Your task to perform on an android device: turn on bluetooth scan Image 0: 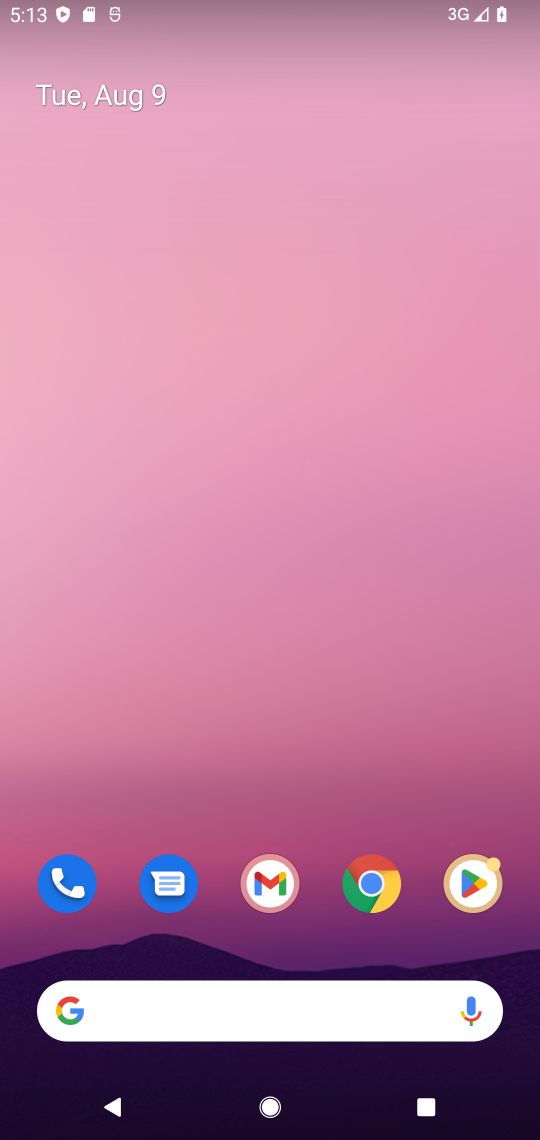
Step 0: drag from (286, 802) to (291, 194)
Your task to perform on an android device: turn on bluetooth scan Image 1: 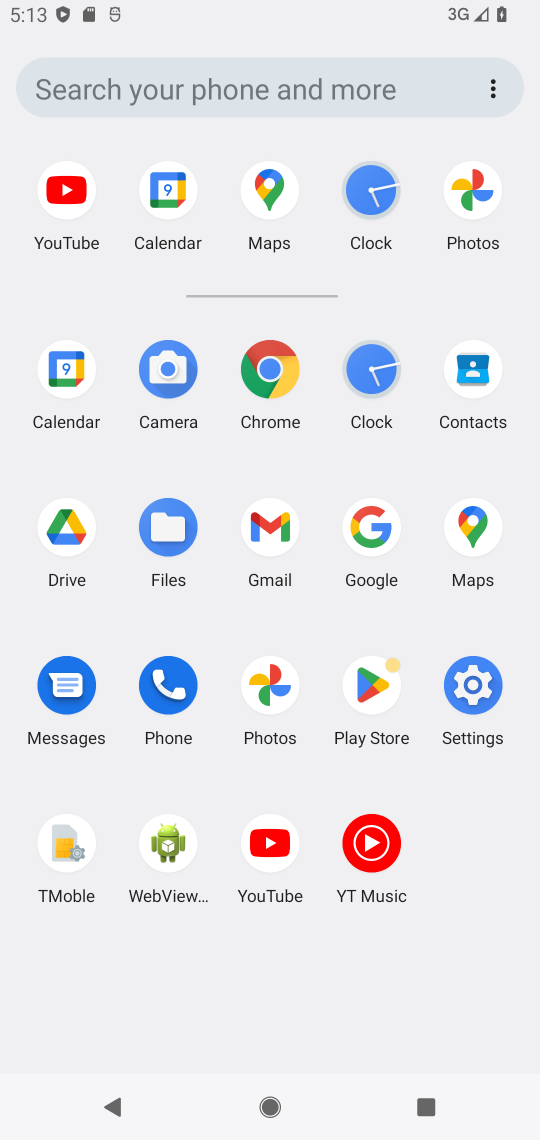
Step 1: click (448, 690)
Your task to perform on an android device: turn on bluetooth scan Image 2: 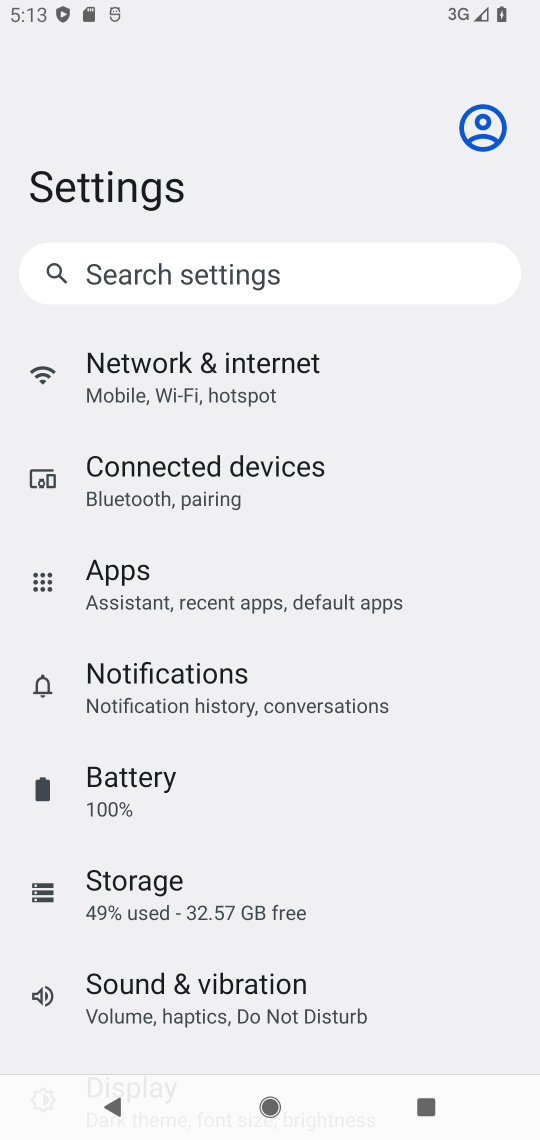
Step 2: drag from (229, 881) to (233, 508)
Your task to perform on an android device: turn on bluetooth scan Image 3: 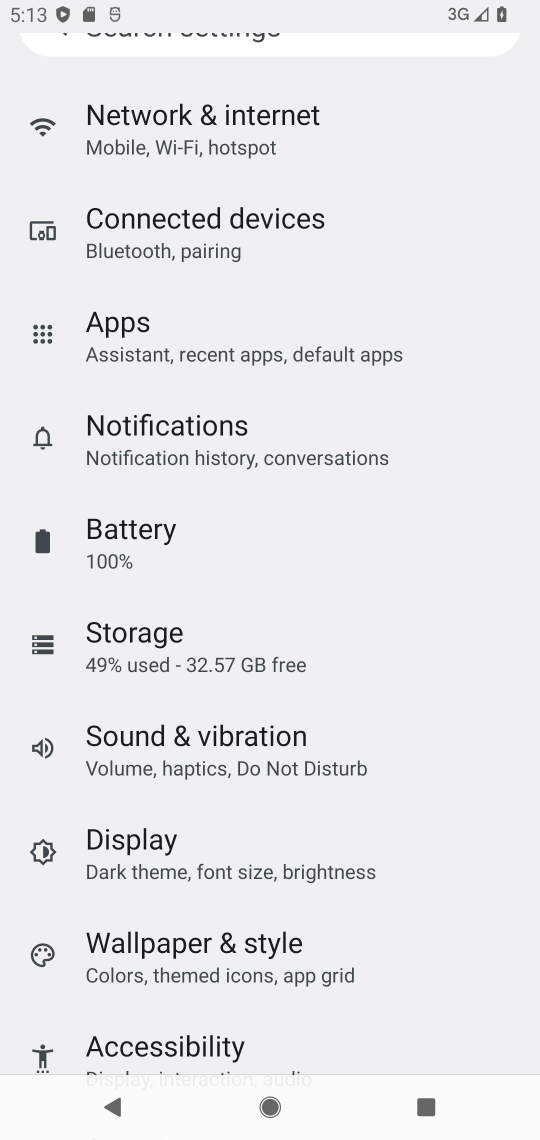
Step 3: drag from (263, 867) to (260, 368)
Your task to perform on an android device: turn on bluetooth scan Image 4: 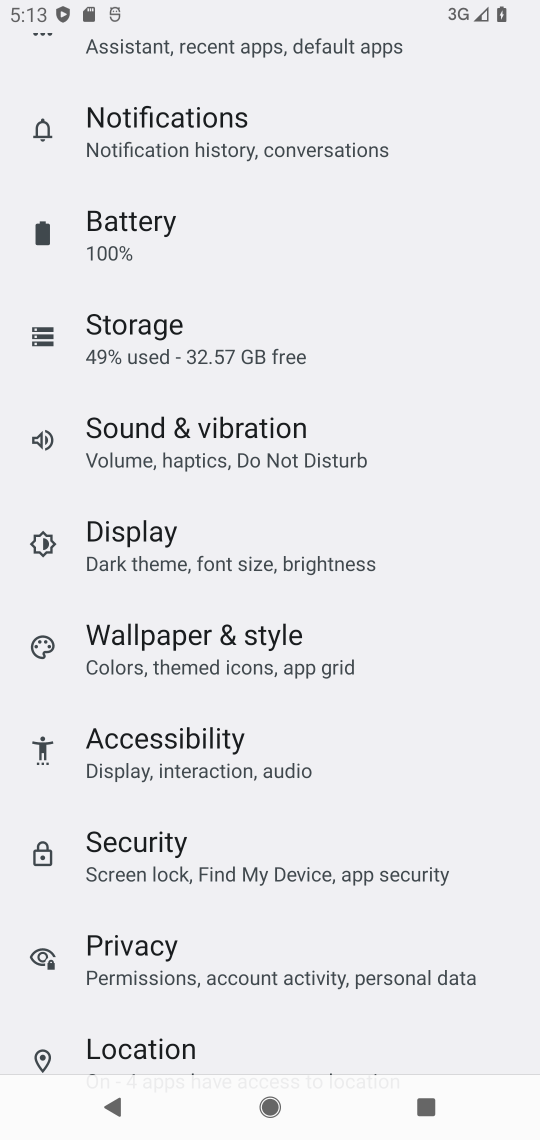
Step 4: drag from (187, 950) to (216, 540)
Your task to perform on an android device: turn on bluetooth scan Image 5: 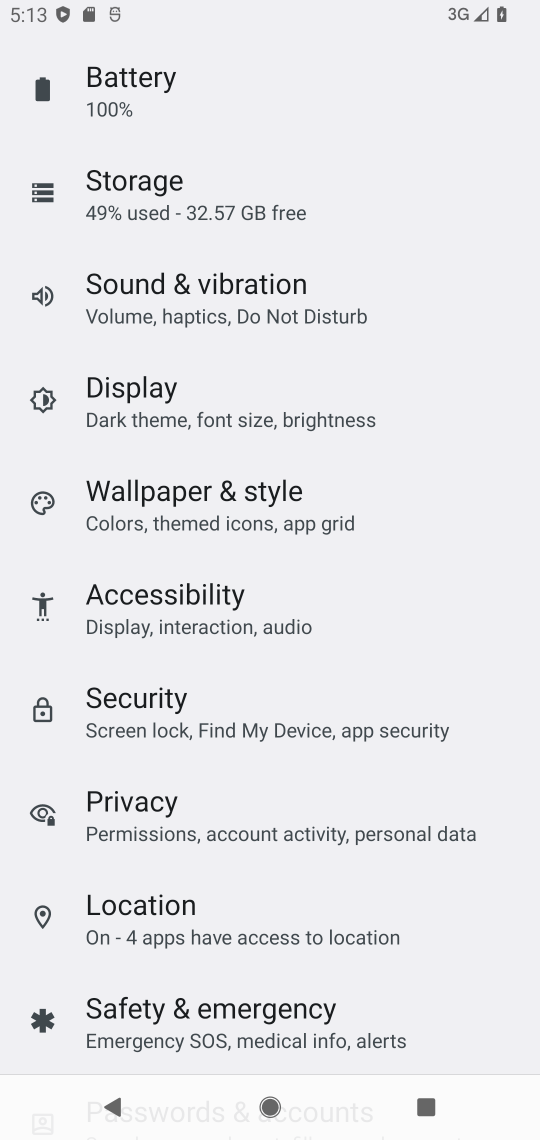
Step 5: click (216, 896)
Your task to perform on an android device: turn on bluetooth scan Image 6: 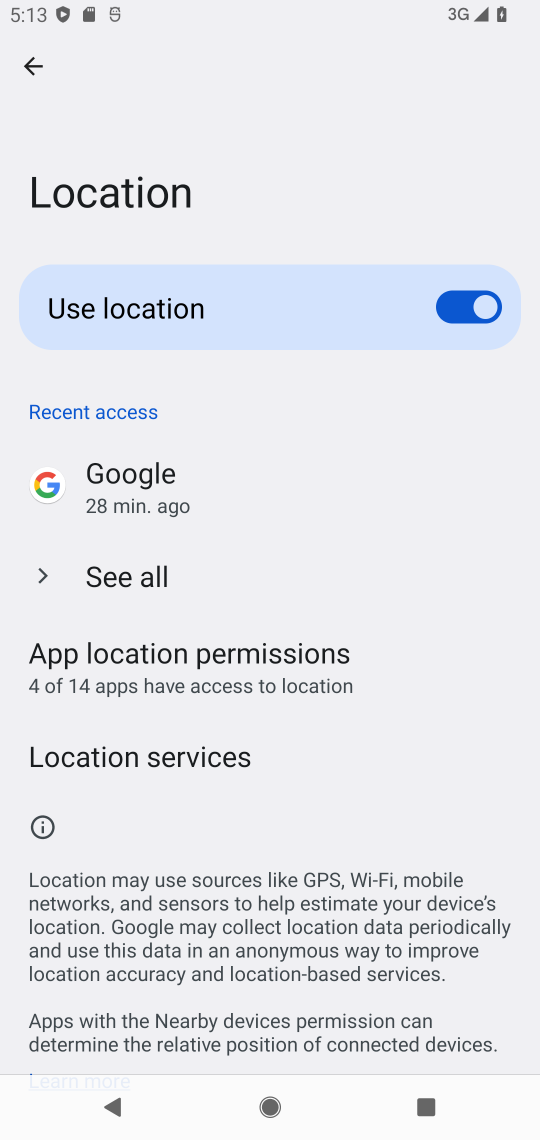
Step 6: drag from (323, 869) to (323, 340)
Your task to perform on an android device: turn on bluetooth scan Image 7: 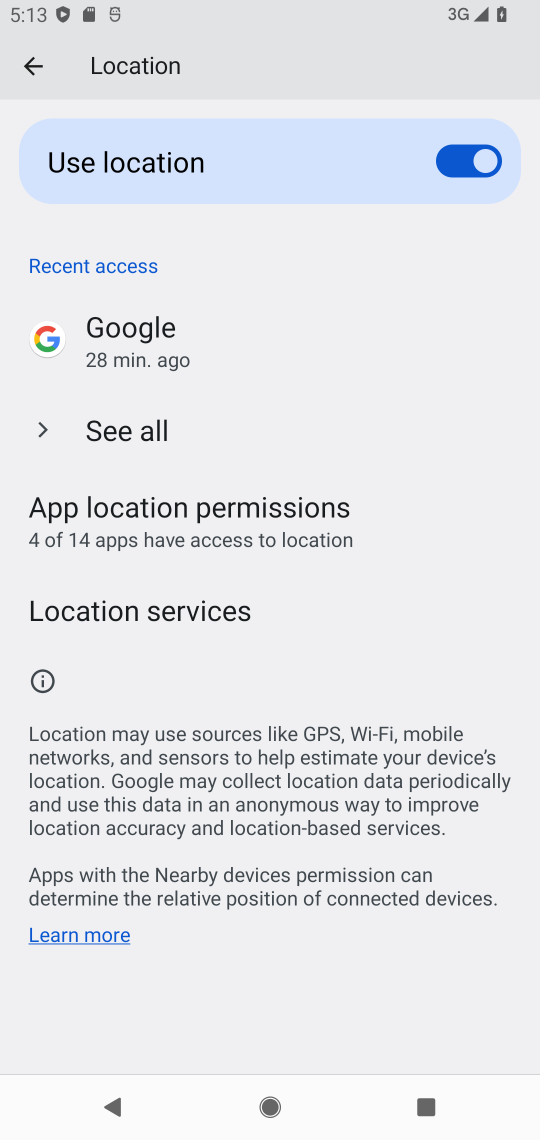
Step 7: click (257, 609)
Your task to perform on an android device: turn on bluetooth scan Image 8: 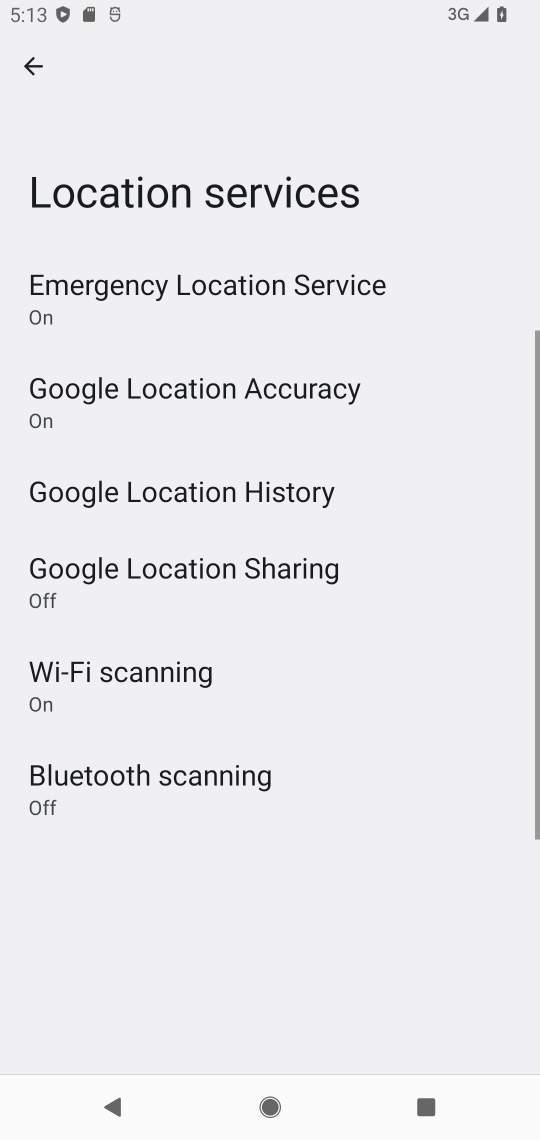
Step 8: click (251, 799)
Your task to perform on an android device: turn on bluetooth scan Image 9: 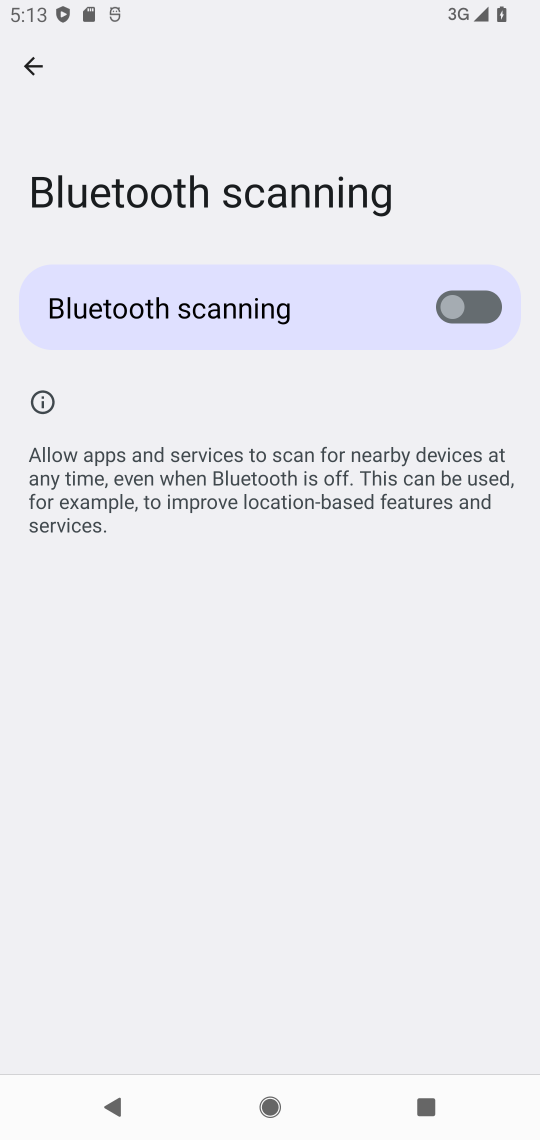
Step 9: click (472, 299)
Your task to perform on an android device: turn on bluetooth scan Image 10: 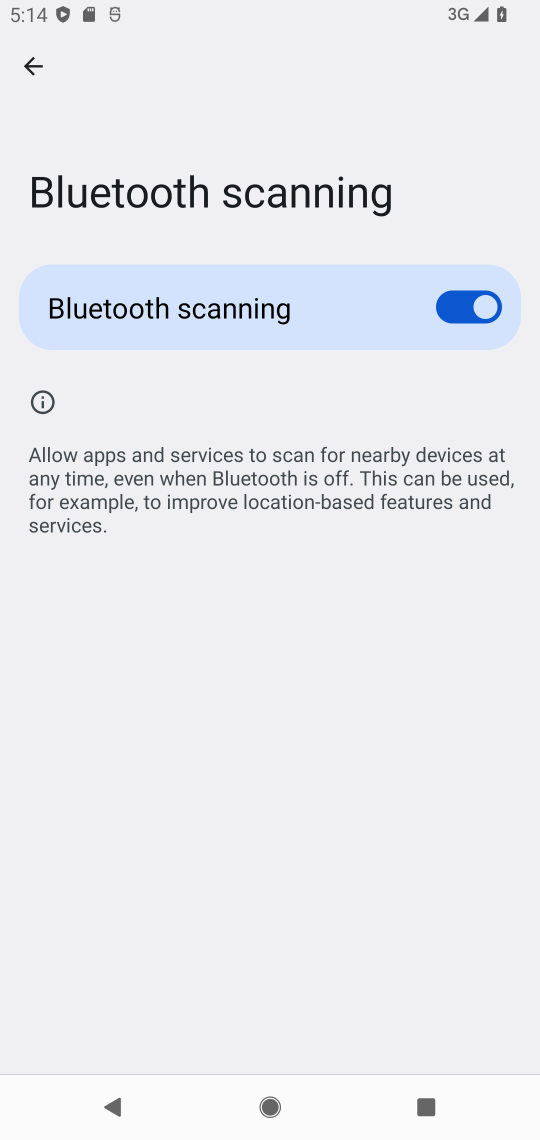
Step 10: task complete